Your task to perform on an android device: Set the phone to "Do not disturb". Image 0: 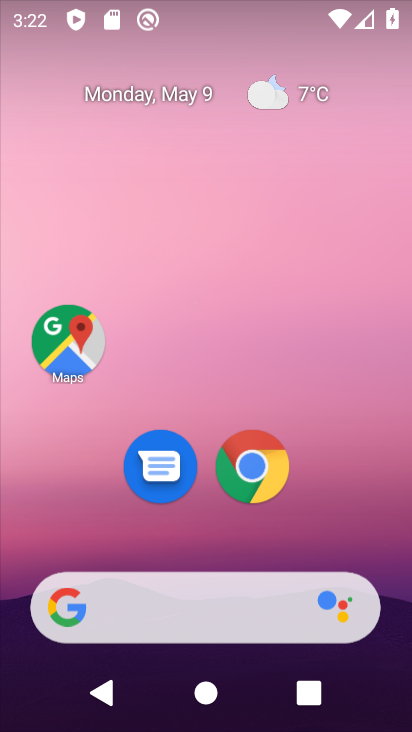
Step 0: drag from (236, 547) to (215, 177)
Your task to perform on an android device: Set the phone to "Do not disturb". Image 1: 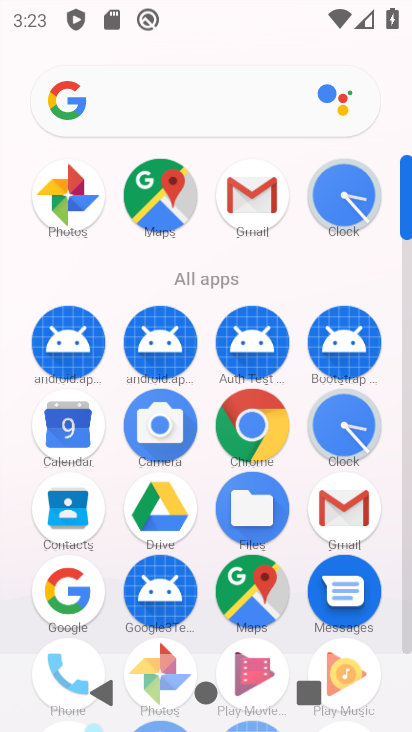
Step 1: drag from (292, 3) to (267, 671)
Your task to perform on an android device: Set the phone to "Do not disturb". Image 2: 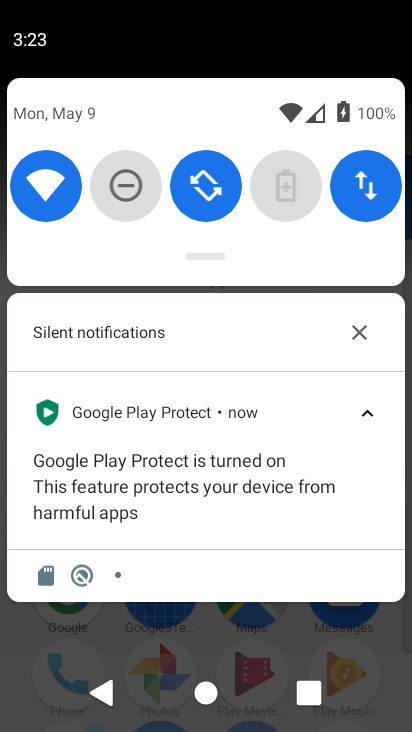
Step 2: click (109, 185)
Your task to perform on an android device: Set the phone to "Do not disturb". Image 3: 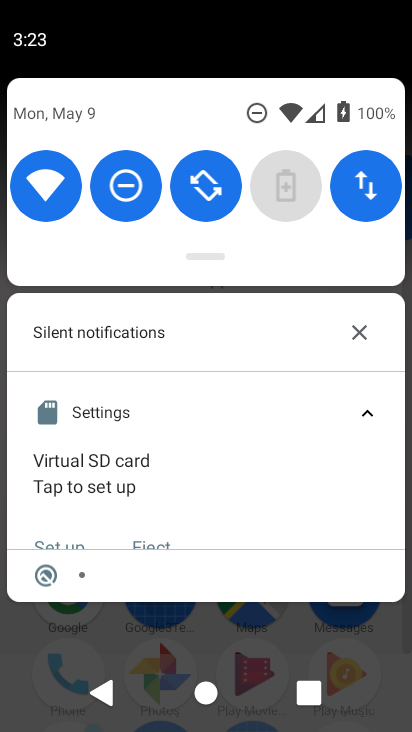
Step 3: task complete